Your task to perform on an android device: check google app version Image 0: 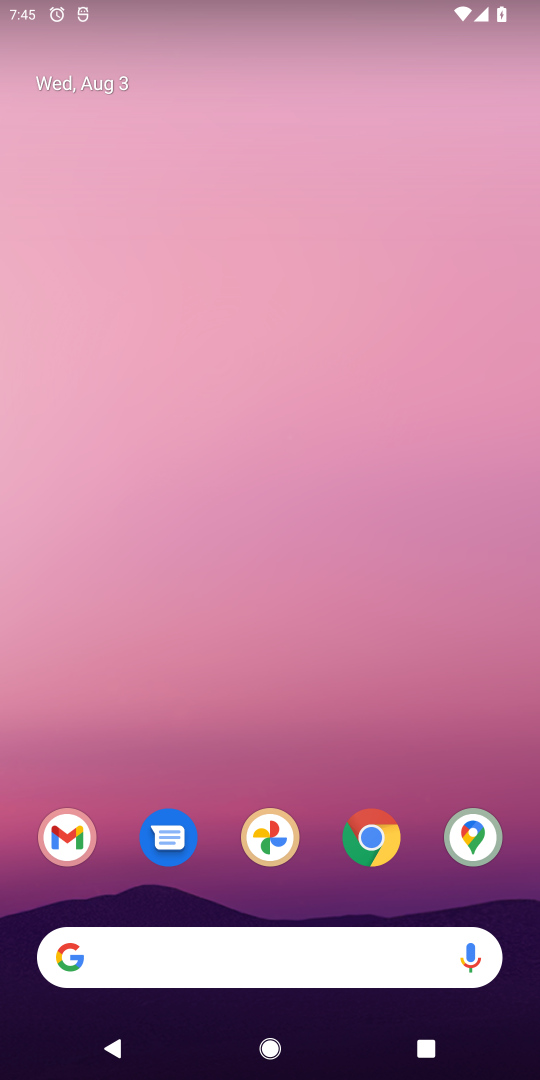
Step 0: press home button
Your task to perform on an android device: check google app version Image 1: 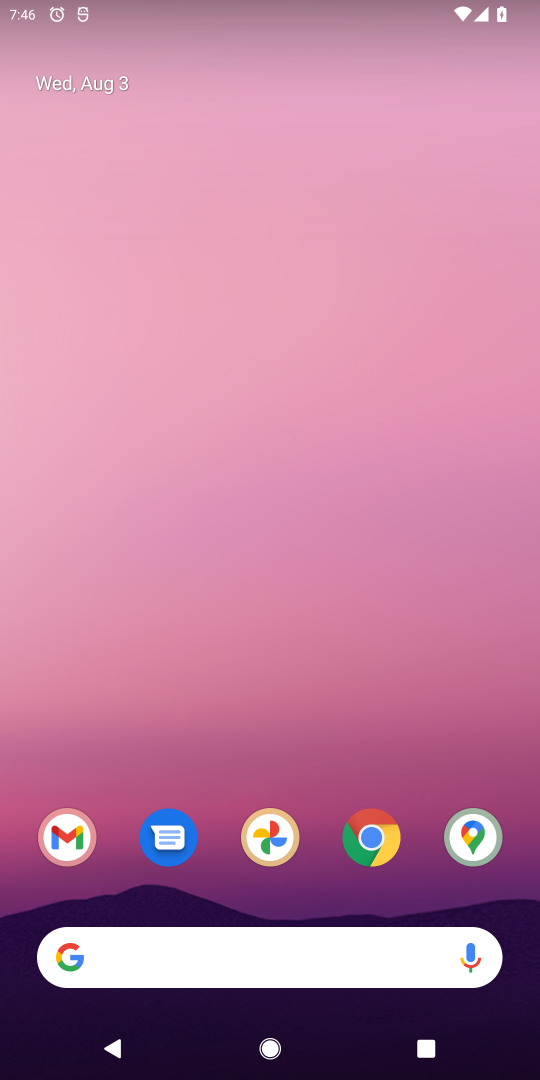
Step 1: drag from (321, 888) to (379, 107)
Your task to perform on an android device: check google app version Image 2: 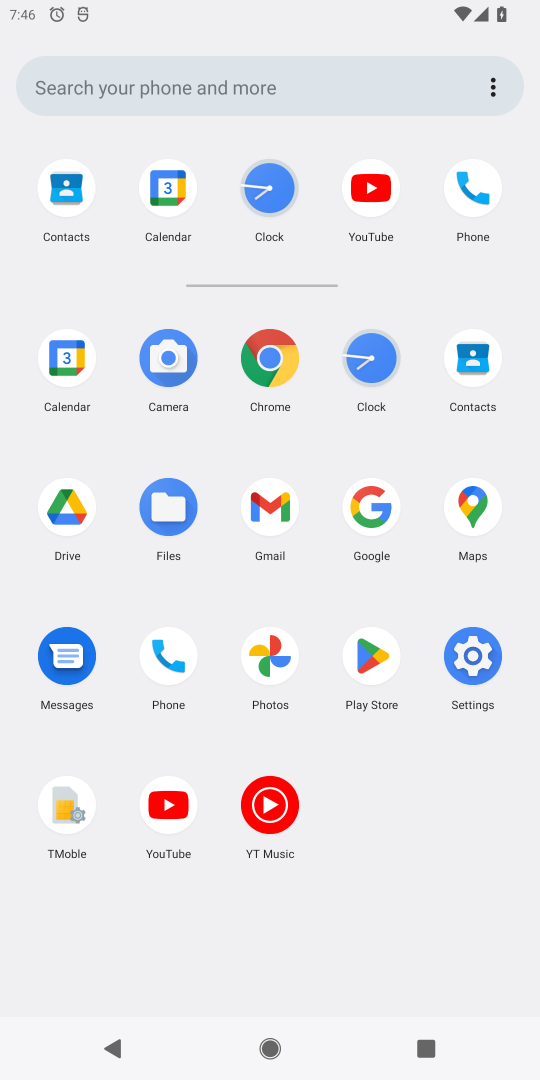
Step 2: click (384, 510)
Your task to perform on an android device: check google app version Image 3: 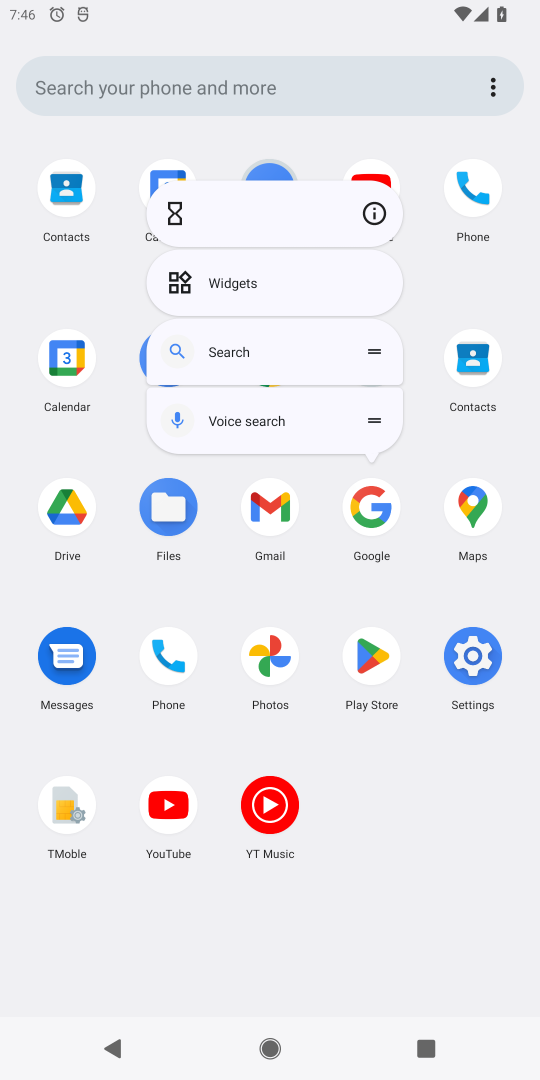
Step 3: click (371, 214)
Your task to perform on an android device: check google app version Image 4: 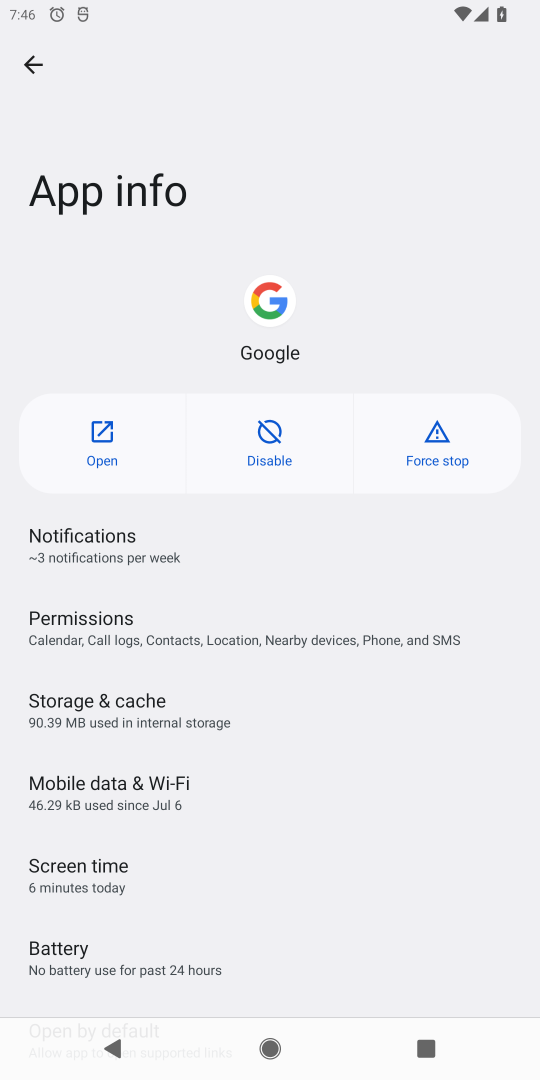
Step 4: task complete